Your task to perform on an android device: manage bookmarks in the chrome app Image 0: 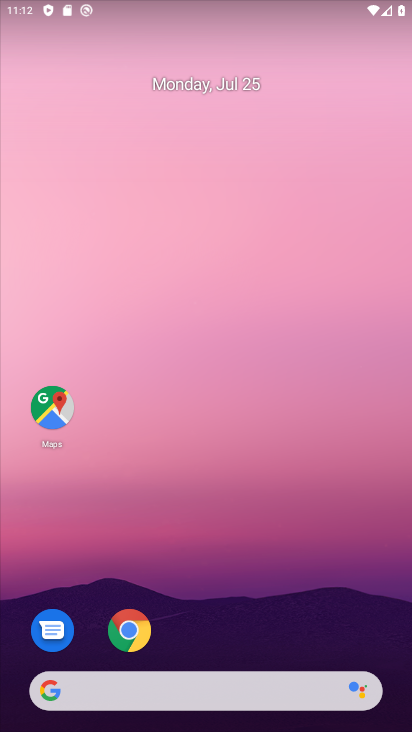
Step 0: click (134, 622)
Your task to perform on an android device: manage bookmarks in the chrome app Image 1: 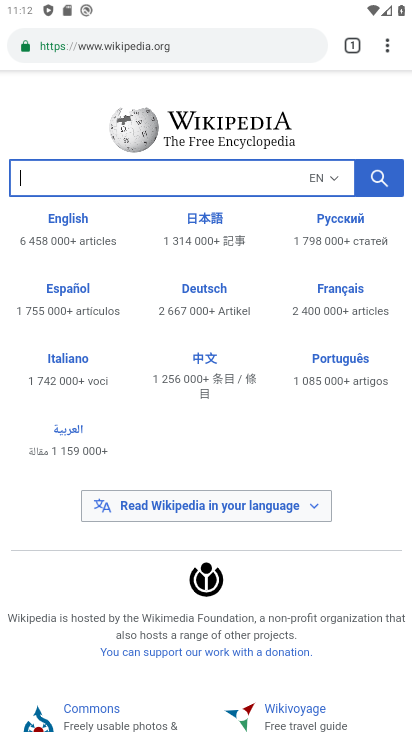
Step 1: click (392, 40)
Your task to perform on an android device: manage bookmarks in the chrome app Image 2: 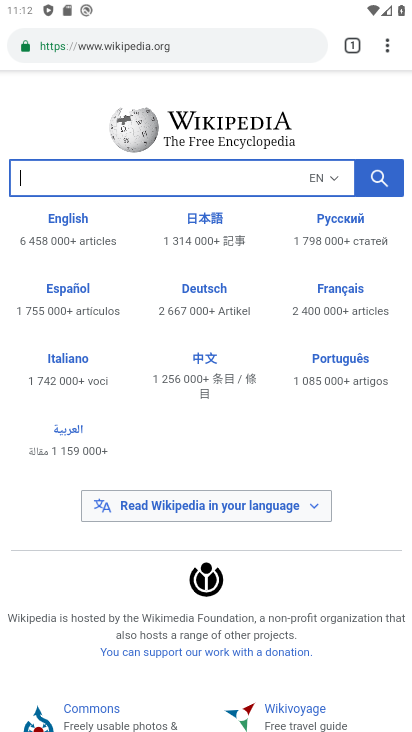
Step 2: click (384, 46)
Your task to perform on an android device: manage bookmarks in the chrome app Image 3: 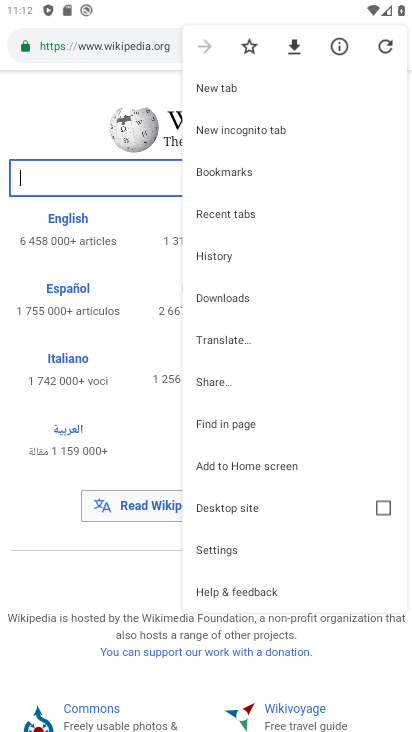
Step 3: click (227, 181)
Your task to perform on an android device: manage bookmarks in the chrome app Image 4: 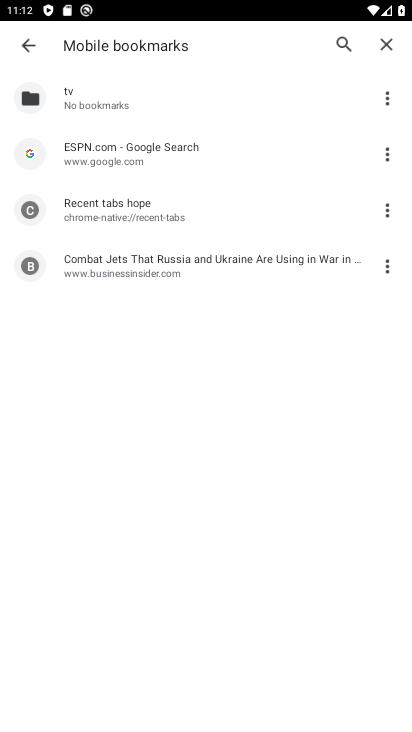
Step 4: click (393, 272)
Your task to perform on an android device: manage bookmarks in the chrome app Image 5: 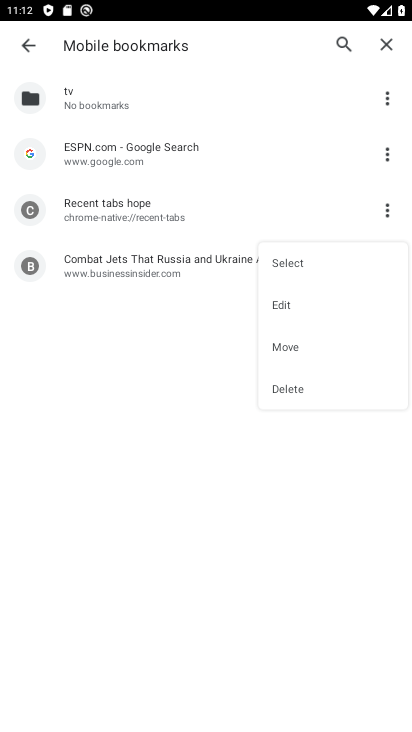
Step 5: click (288, 387)
Your task to perform on an android device: manage bookmarks in the chrome app Image 6: 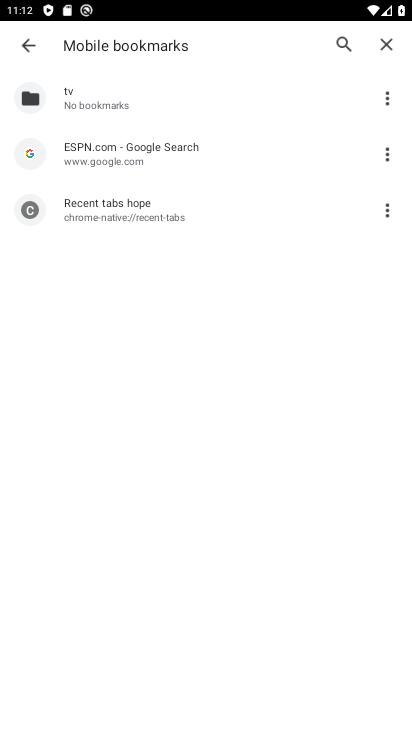
Step 6: task complete